Your task to perform on an android device: open sync settings in chrome Image 0: 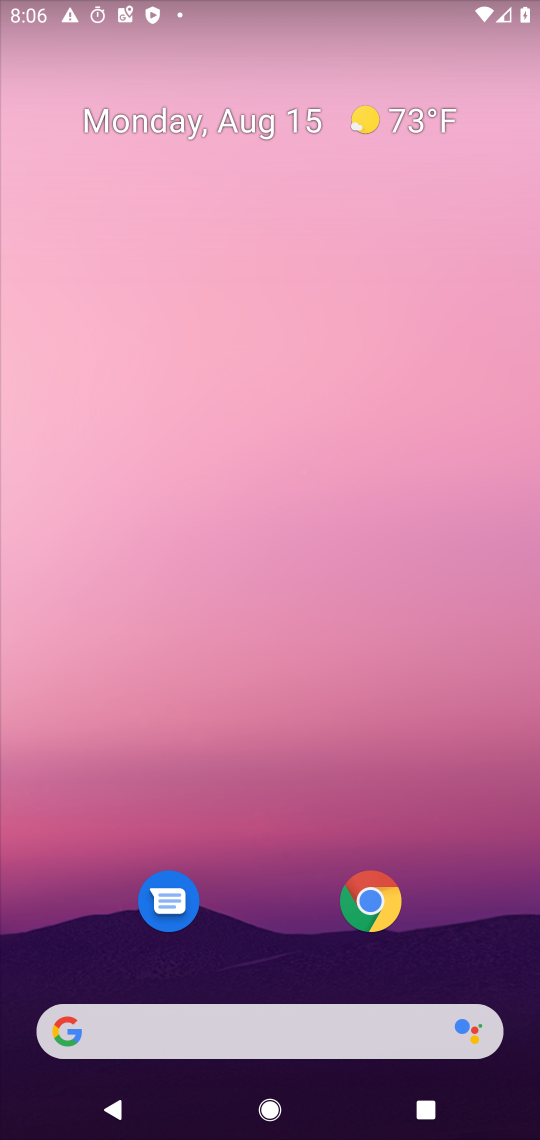
Step 0: drag from (253, 961) to (277, 70)
Your task to perform on an android device: open sync settings in chrome Image 1: 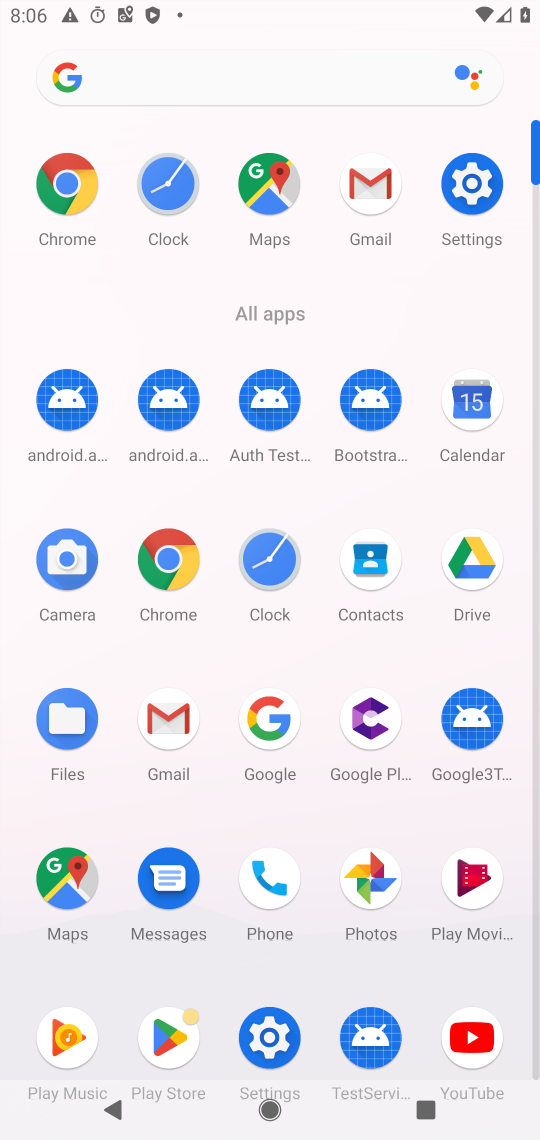
Step 1: click (166, 575)
Your task to perform on an android device: open sync settings in chrome Image 2: 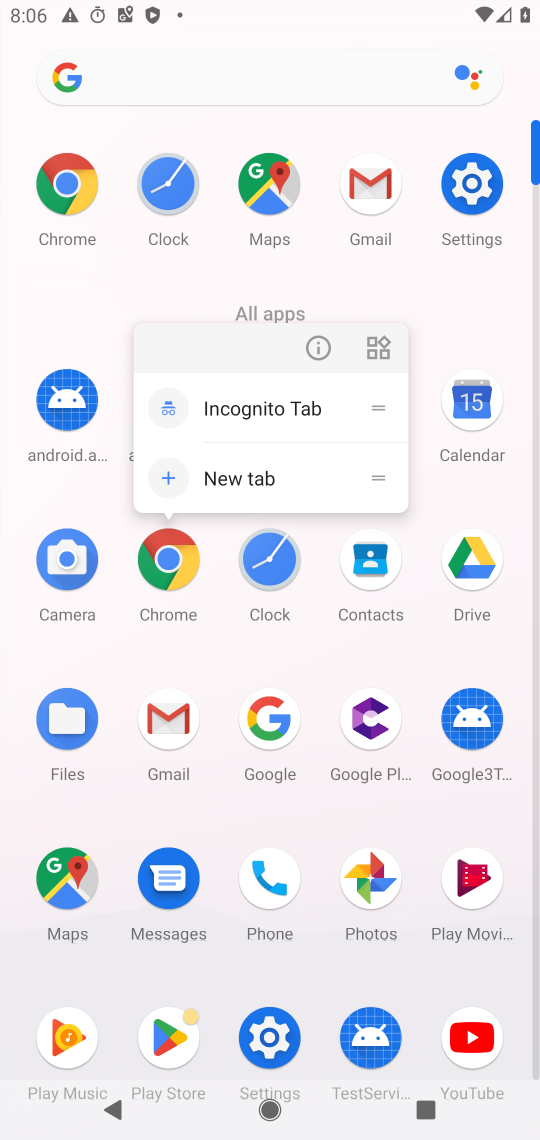
Step 2: click (166, 547)
Your task to perform on an android device: open sync settings in chrome Image 3: 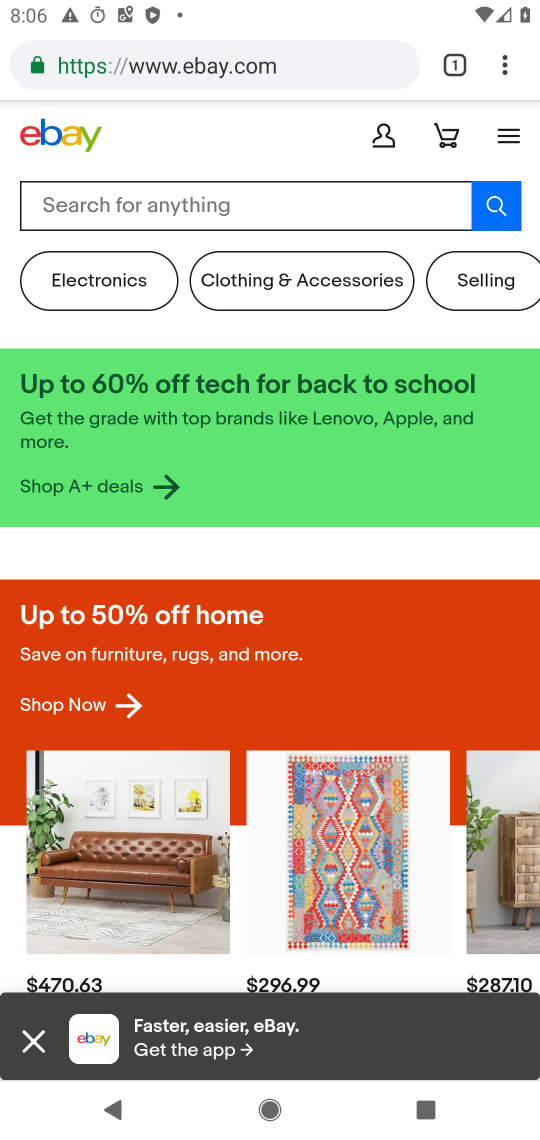
Step 3: click (497, 60)
Your task to perform on an android device: open sync settings in chrome Image 4: 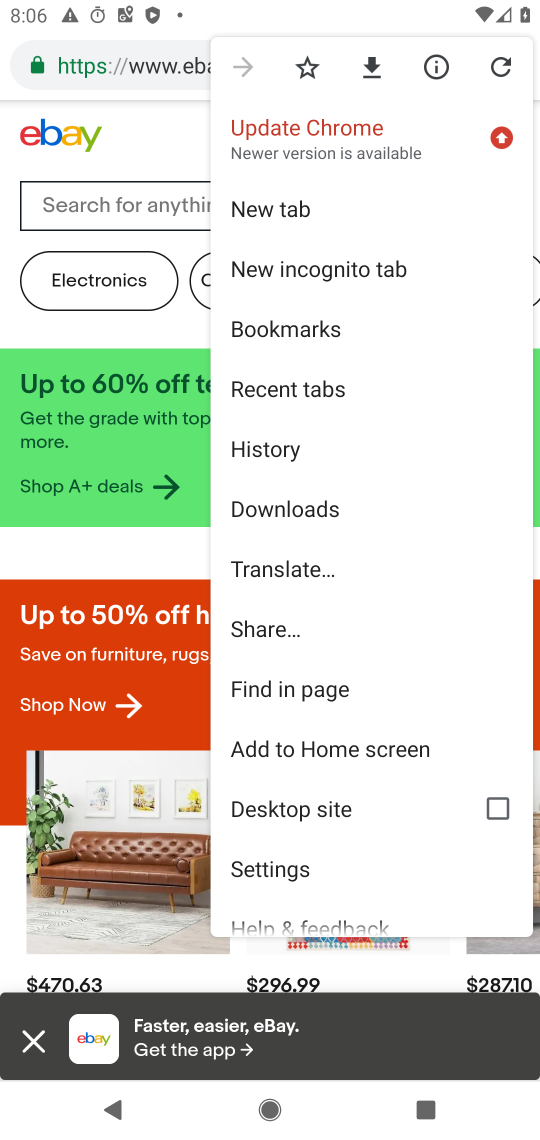
Step 4: click (284, 868)
Your task to perform on an android device: open sync settings in chrome Image 5: 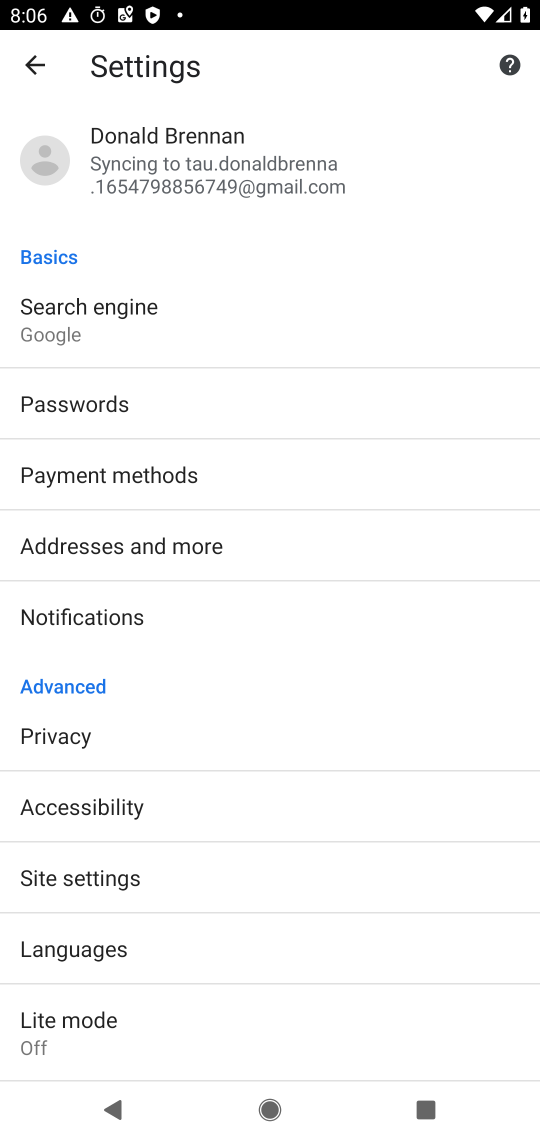
Step 5: click (225, 171)
Your task to perform on an android device: open sync settings in chrome Image 6: 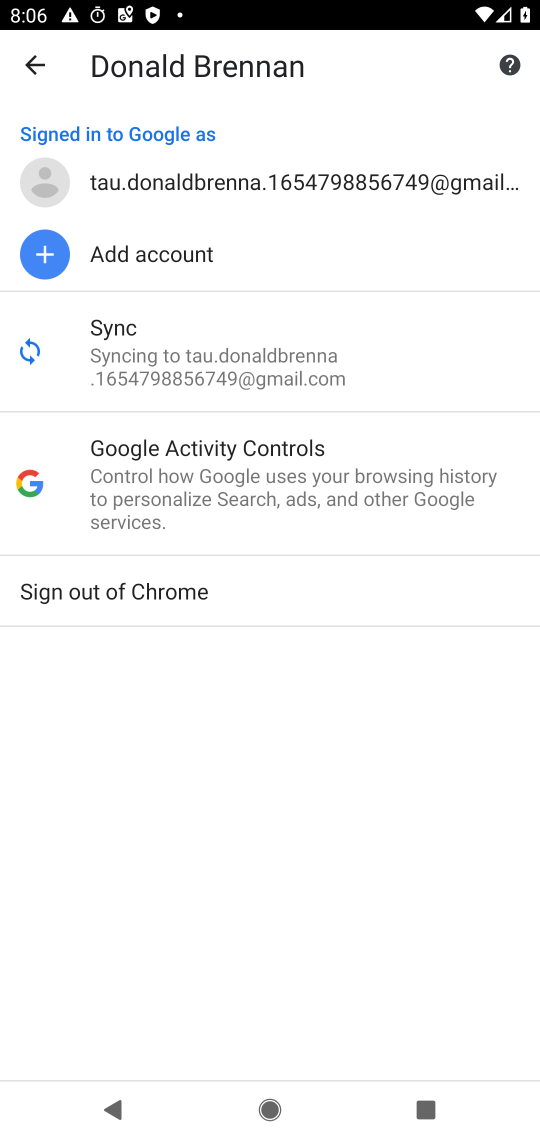
Step 6: click (202, 360)
Your task to perform on an android device: open sync settings in chrome Image 7: 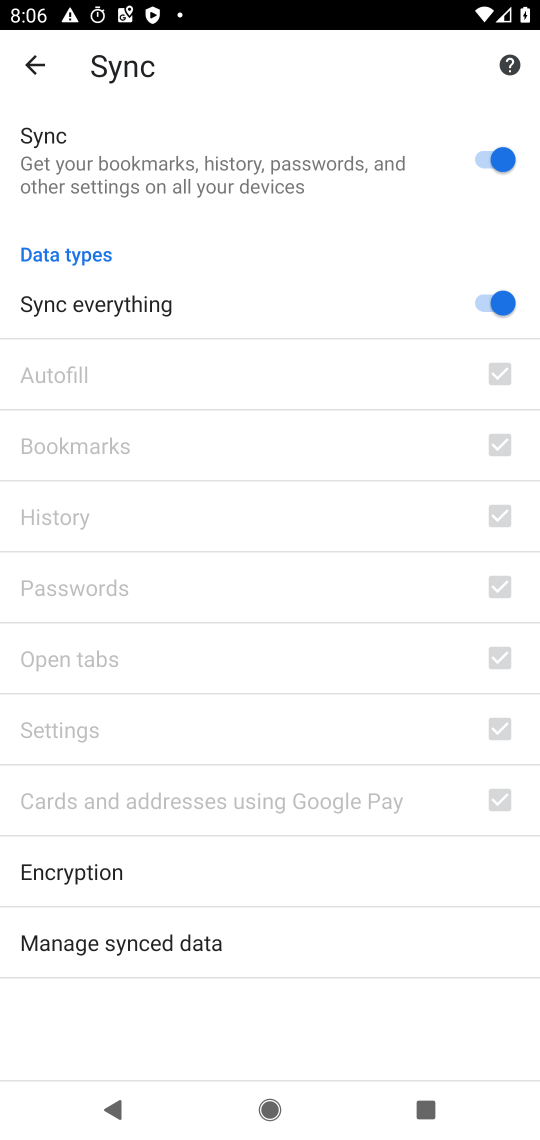
Step 7: task complete